Your task to perform on an android device: Toggle the flashlight Image 0: 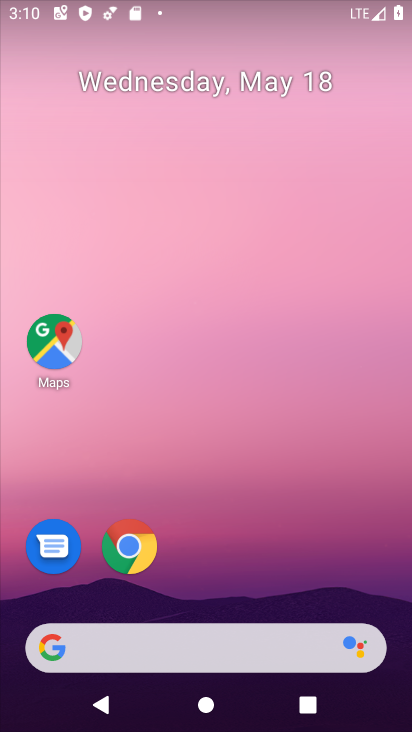
Step 0: drag from (215, 711) to (217, 196)
Your task to perform on an android device: Toggle the flashlight Image 1: 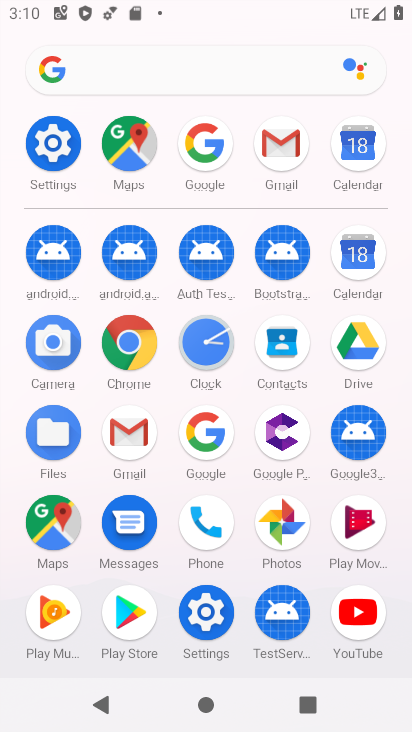
Step 1: click (51, 141)
Your task to perform on an android device: Toggle the flashlight Image 2: 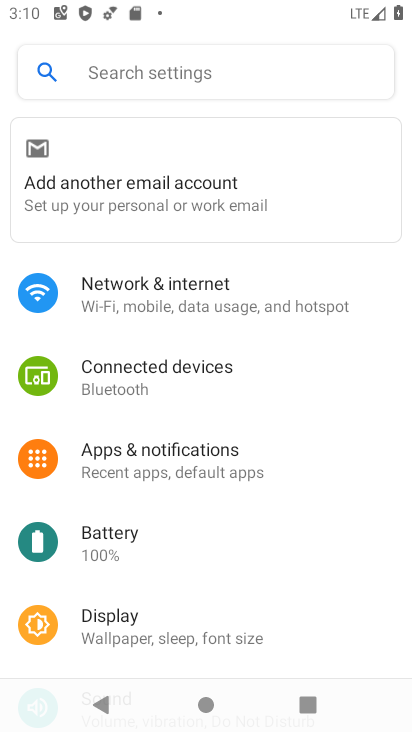
Step 2: task complete